Your task to perform on an android device: turn on translation in the chrome app Image 0: 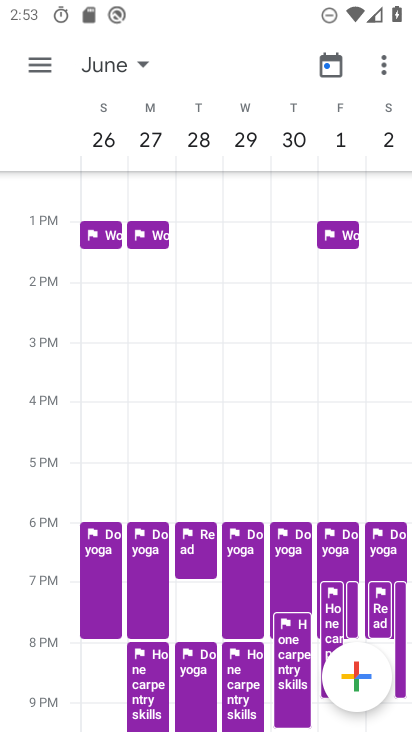
Step 0: press home button
Your task to perform on an android device: turn on translation in the chrome app Image 1: 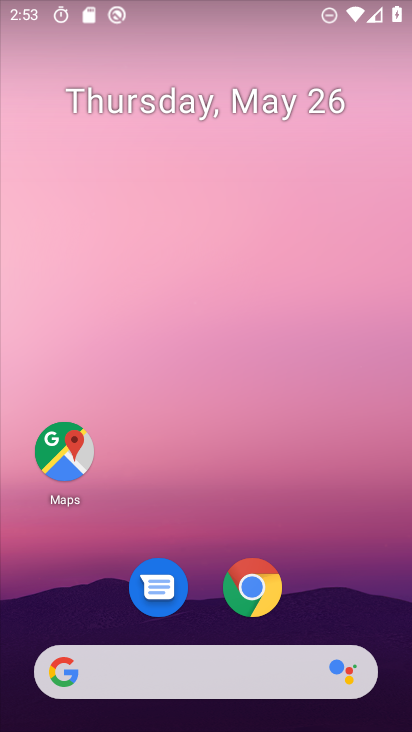
Step 1: click (248, 581)
Your task to perform on an android device: turn on translation in the chrome app Image 2: 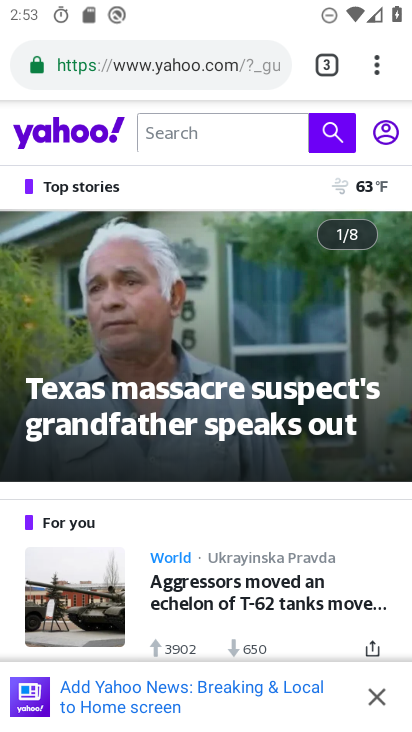
Step 2: drag from (376, 63) to (196, 636)
Your task to perform on an android device: turn on translation in the chrome app Image 3: 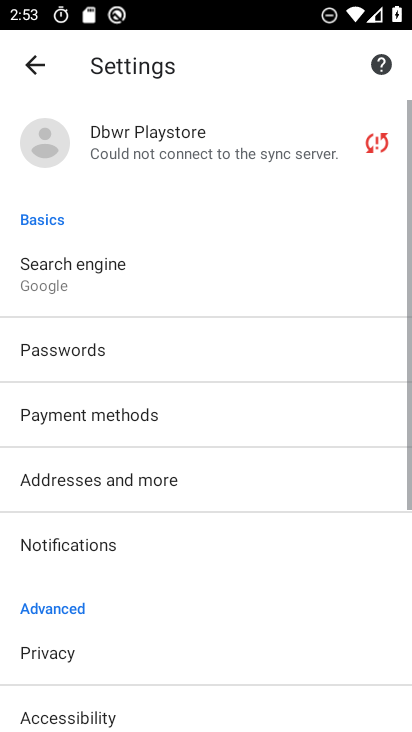
Step 3: drag from (194, 613) to (202, 90)
Your task to perform on an android device: turn on translation in the chrome app Image 4: 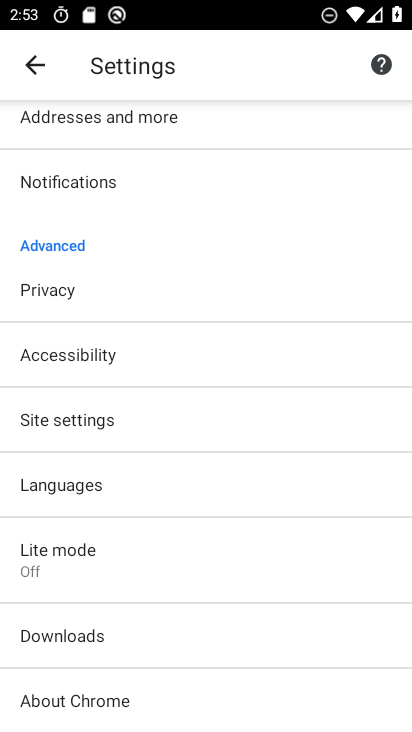
Step 4: click (102, 490)
Your task to perform on an android device: turn on translation in the chrome app Image 5: 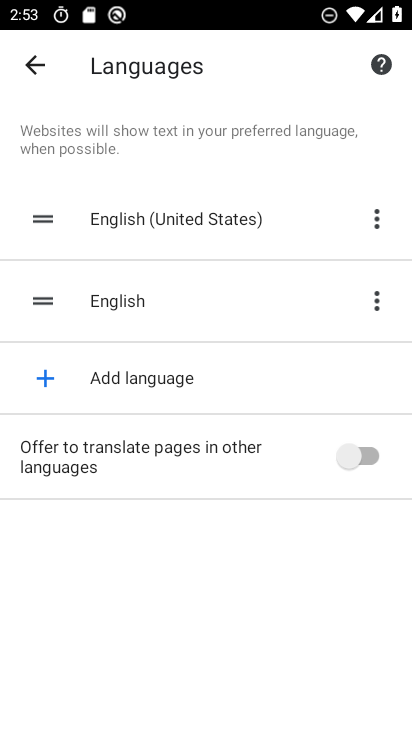
Step 5: click (341, 461)
Your task to perform on an android device: turn on translation in the chrome app Image 6: 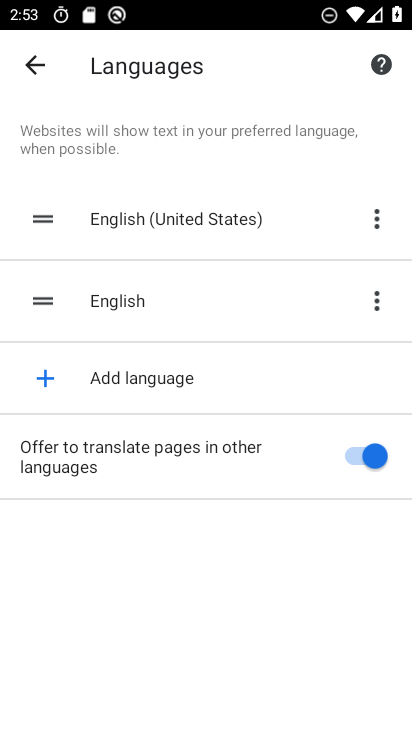
Step 6: task complete